Your task to perform on an android device: check storage Image 0: 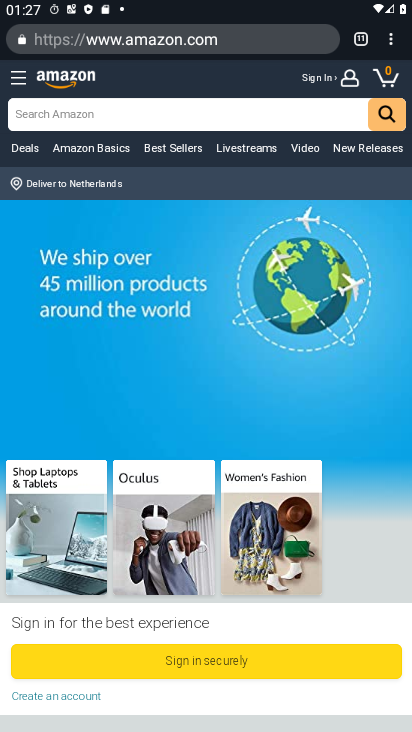
Step 0: press home button
Your task to perform on an android device: check storage Image 1: 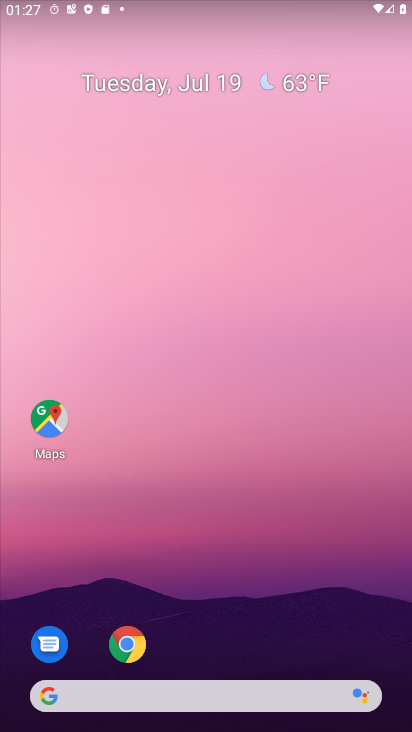
Step 1: drag from (260, 696) to (268, 184)
Your task to perform on an android device: check storage Image 2: 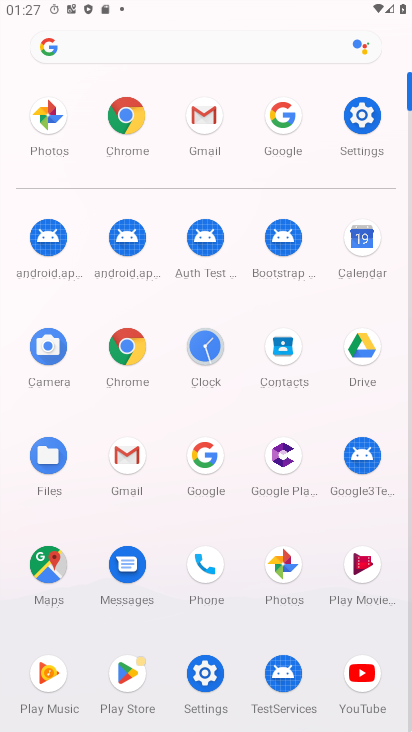
Step 2: click (366, 111)
Your task to perform on an android device: check storage Image 3: 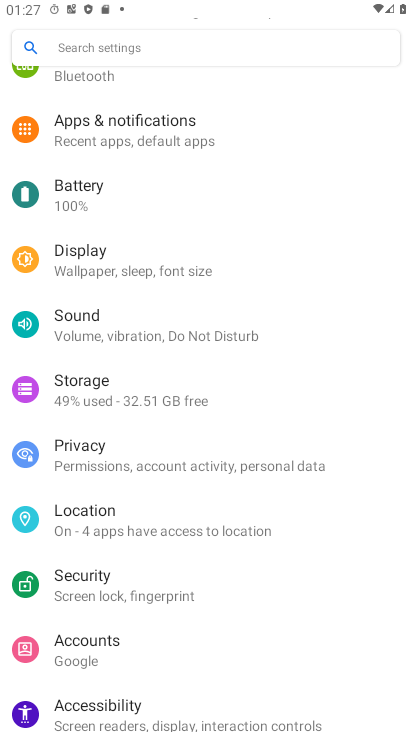
Step 3: click (89, 395)
Your task to perform on an android device: check storage Image 4: 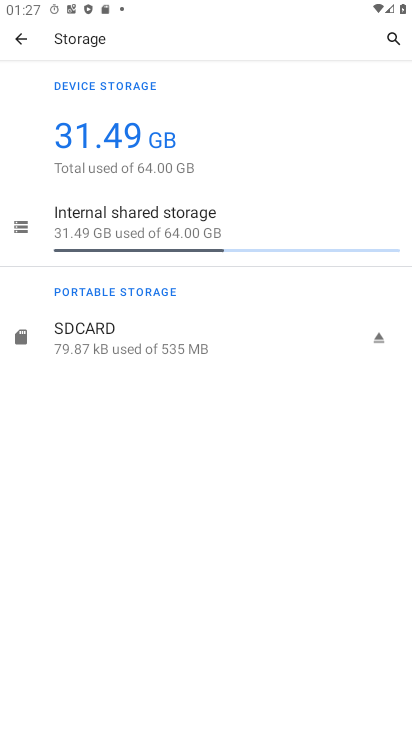
Step 4: task complete